Your task to perform on an android device: Check the weather Image 0: 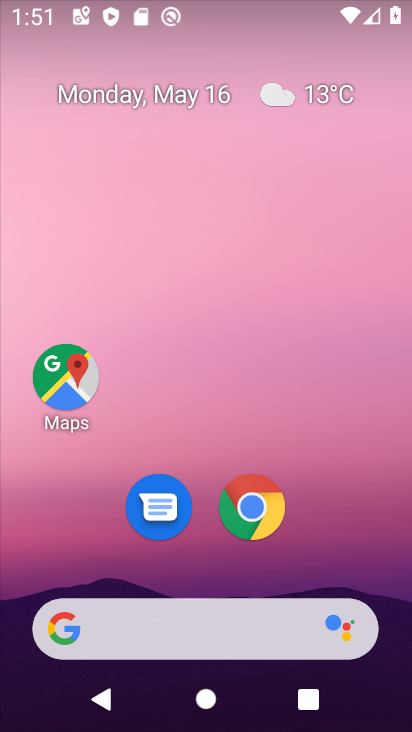
Step 0: click (244, 635)
Your task to perform on an android device: Check the weather Image 1: 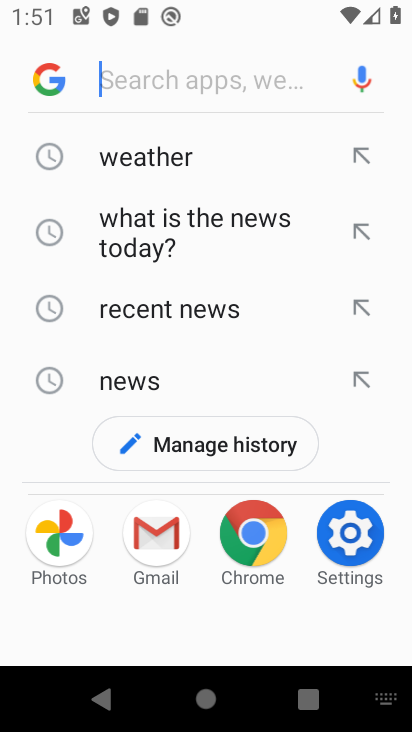
Step 1: click (165, 162)
Your task to perform on an android device: Check the weather Image 2: 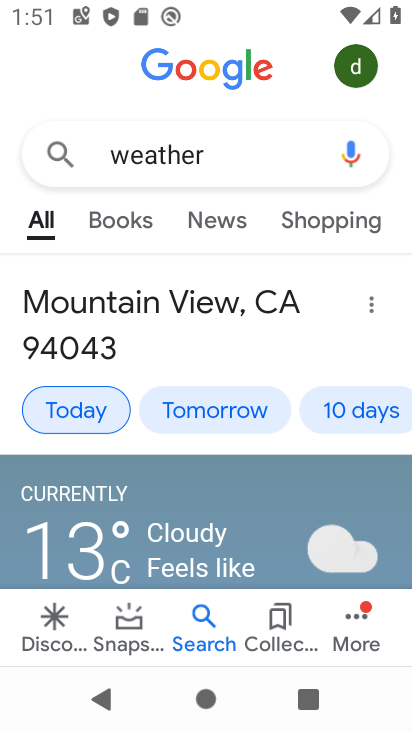
Step 2: task complete